Your task to perform on an android device: turn on airplane mode Image 0: 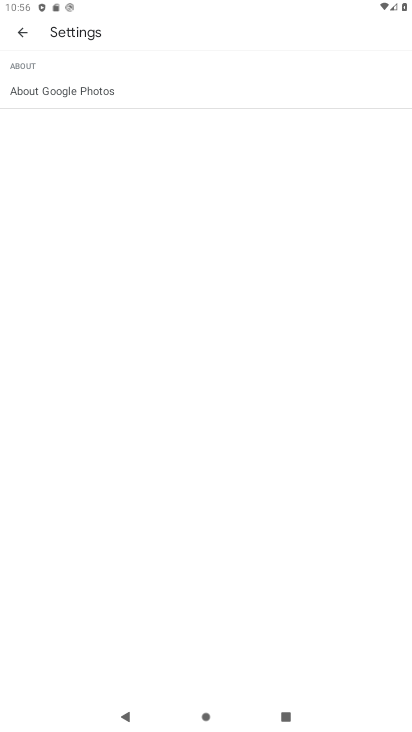
Step 0: press home button
Your task to perform on an android device: turn on airplane mode Image 1: 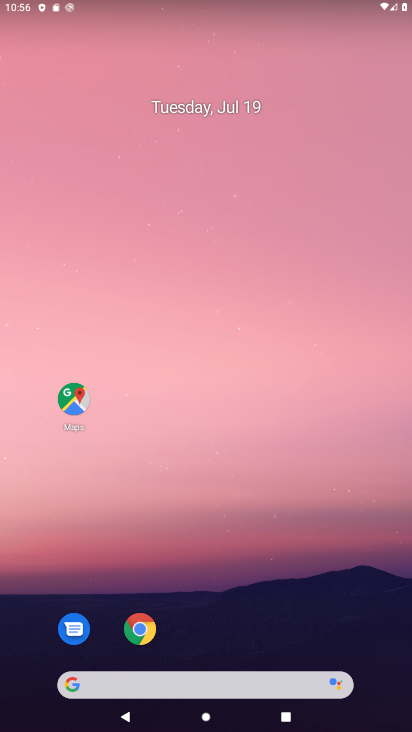
Step 1: drag from (269, 625) to (292, 173)
Your task to perform on an android device: turn on airplane mode Image 2: 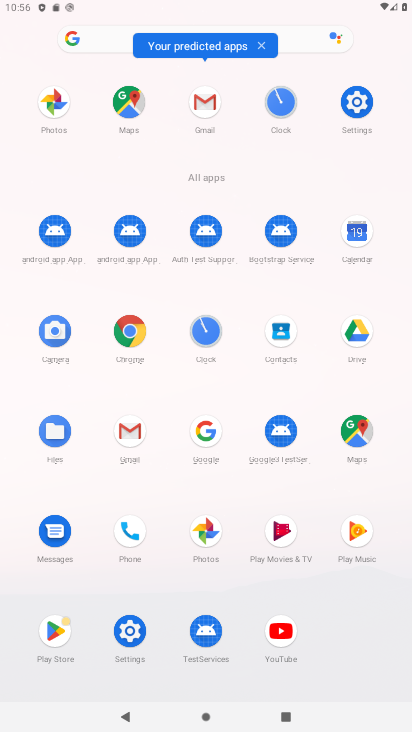
Step 2: click (359, 95)
Your task to perform on an android device: turn on airplane mode Image 3: 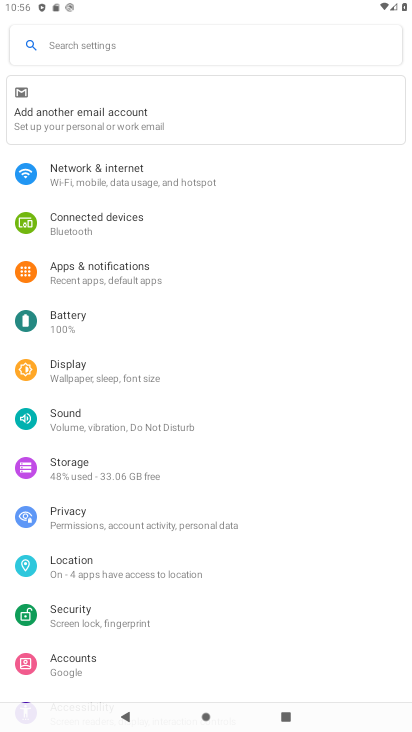
Step 3: click (182, 167)
Your task to perform on an android device: turn on airplane mode Image 4: 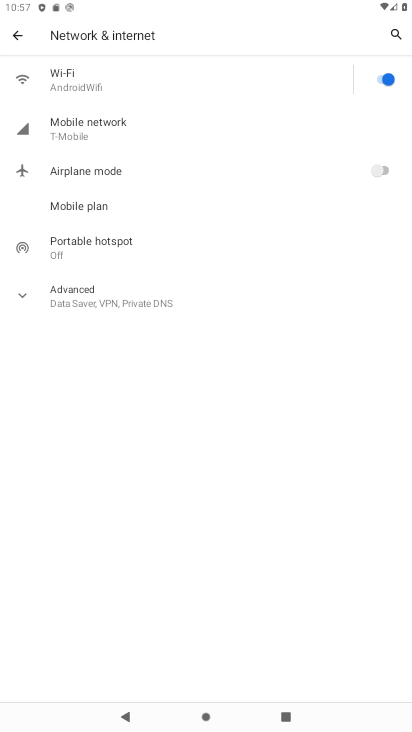
Step 4: click (380, 168)
Your task to perform on an android device: turn on airplane mode Image 5: 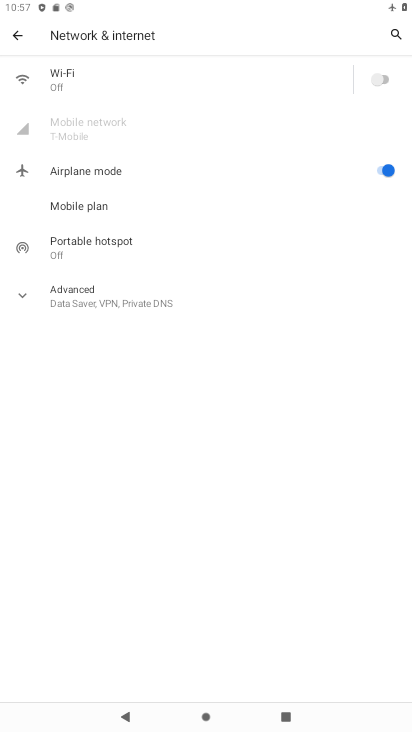
Step 5: task complete